Your task to perform on an android device: change notifications settings Image 0: 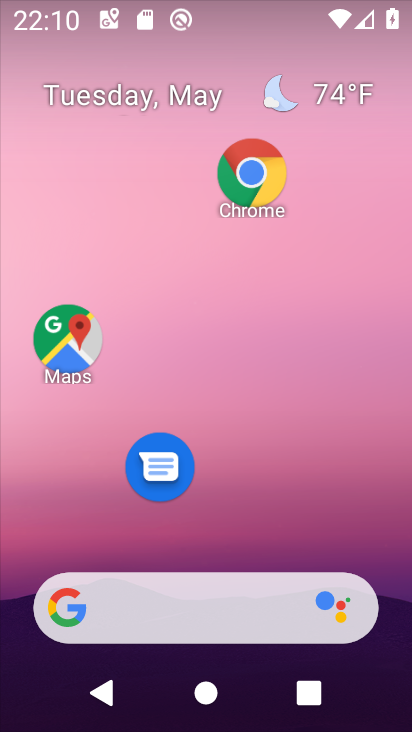
Step 0: drag from (351, 517) to (352, 171)
Your task to perform on an android device: change notifications settings Image 1: 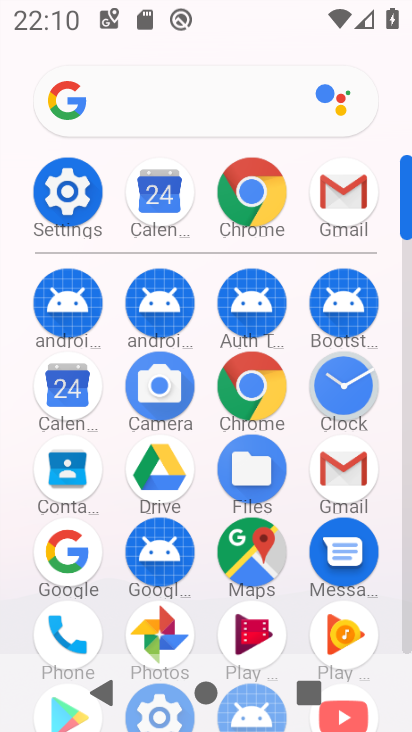
Step 1: click (80, 199)
Your task to perform on an android device: change notifications settings Image 2: 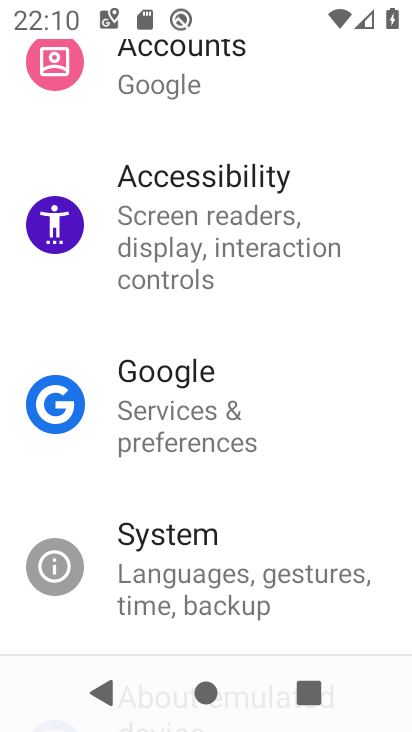
Step 2: drag from (280, 117) to (269, 558)
Your task to perform on an android device: change notifications settings Image 3: 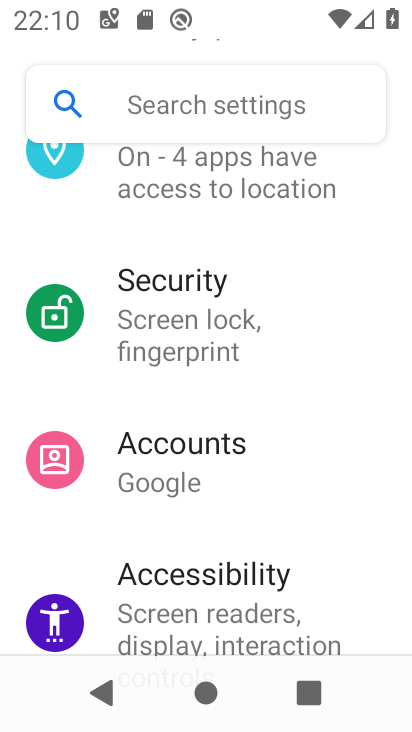
Step 3: drag from (303, 300) to (301, 489)
Your task to perform on an android device: change notifications settings Image 4: 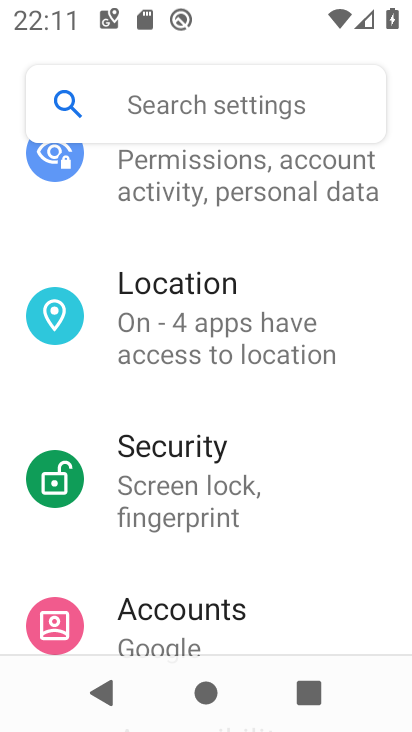
Step 4: drag from (301, 271) to (278, 551)
Your task to perform on an android device: change notifications settings Image 5: 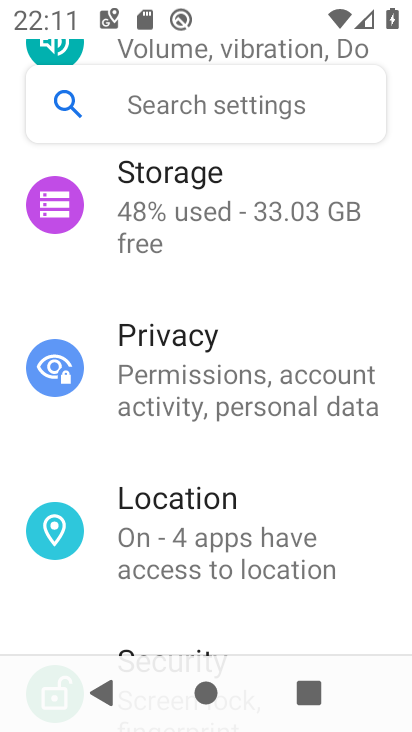
Step 5: drag from (285, 277) to (260, 603)
Your task to perform on an android device: change notifications settings Image 6: 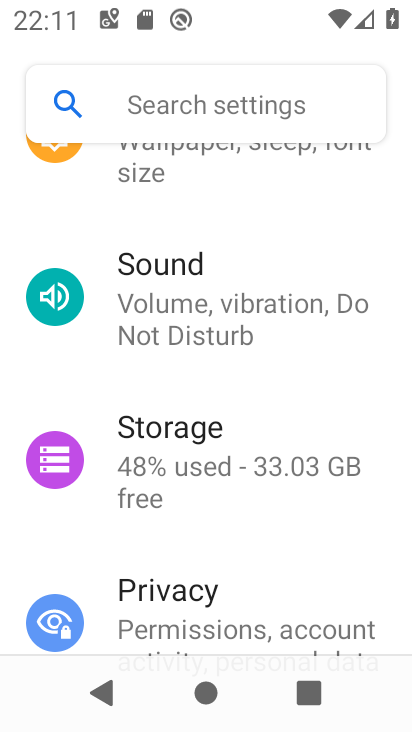
Step 6: drag from (289, 248) to (238, 646)
Your task to perform on an android device: change notifications settings Image 7: 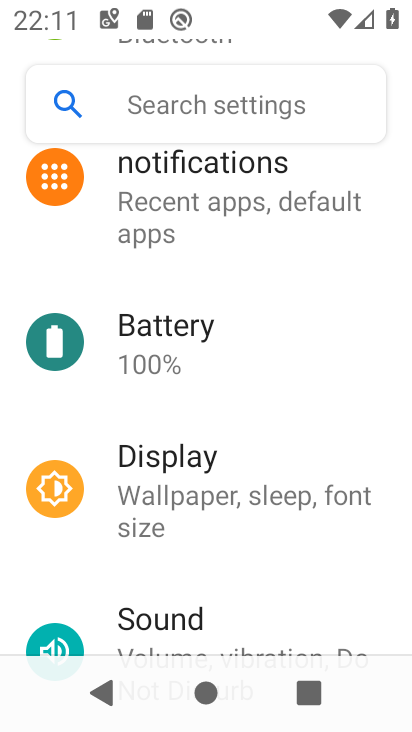
Step 7: drag from (265, 202) to (274, 535)
Your task to perform on an android device: change notifications settings Image 8: 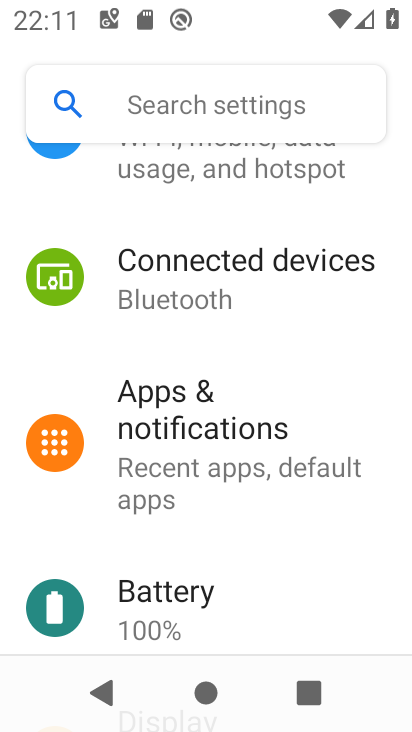
Step 8: click (266, 472)
Your task to perform on an android device: change notifications settings Image 9: 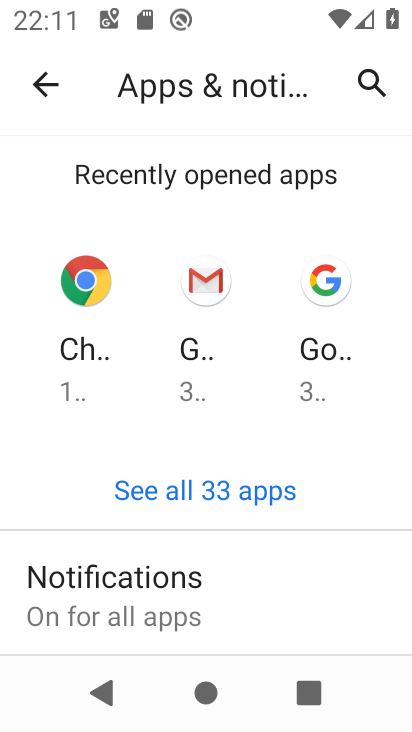
Step 9: click (182, 601)
Your task to perform on an android device: change notifications settings Image 10: 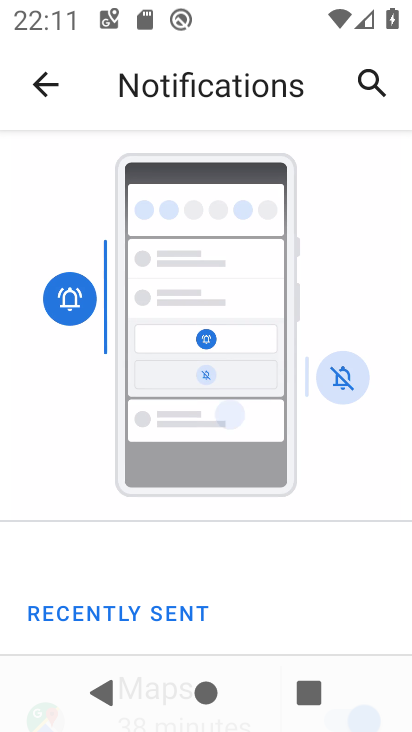
Step 10: drag from (264, 622) to (288, 276)
Your task to perform on an android device: change notifications settings Image 11: 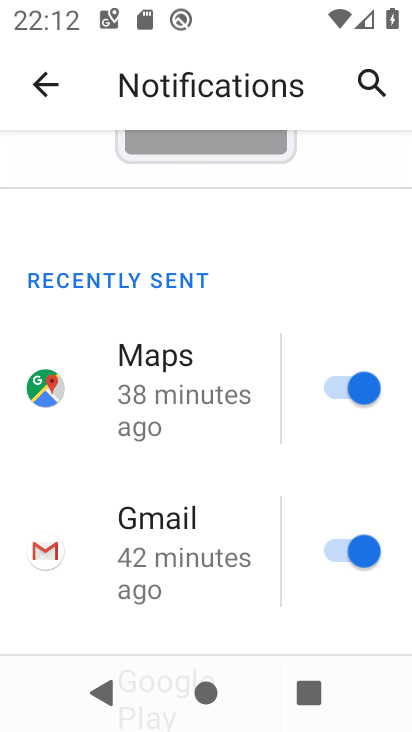
Step 11: drag from (221, 589) to (248, 277)
Your task to perform on an android device: change notifications settings Image 12: 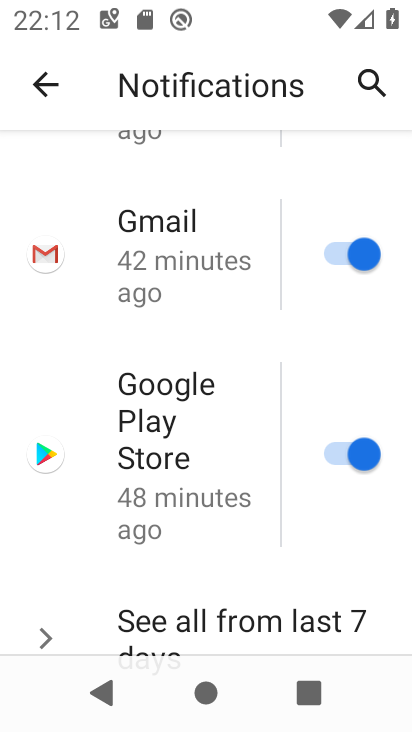
Step 12: drag from (195, 587) to (240, 297)
Your task to perform on an android device: change notifications settings Image 13: 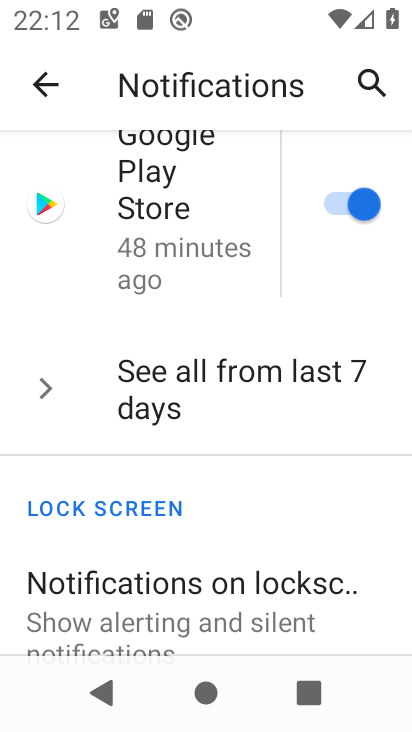
Step 13: drag from (206, 558) to (249, 259)
Your task to perform on an android device: change notifications settings Image 14: 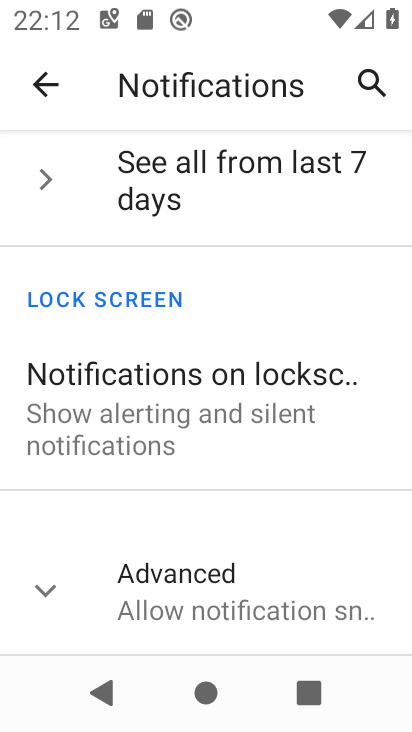
Step 14: click (224, 436)
Your task to perform on an android device: change notifications settings Image 15: 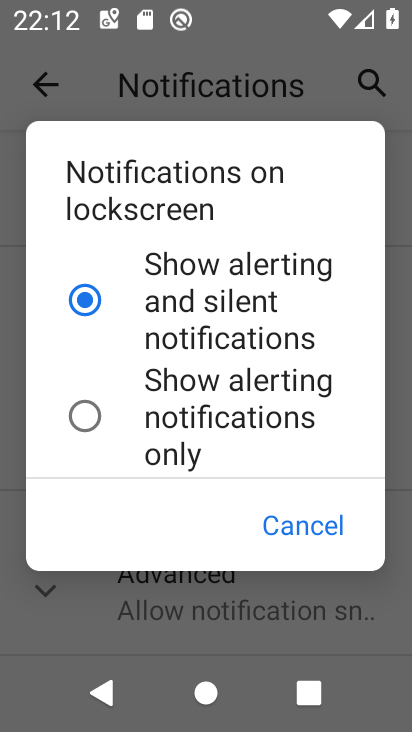
Step 15: click (96, 415)
Your task to perform on an android device: change notifications settings Image 16: 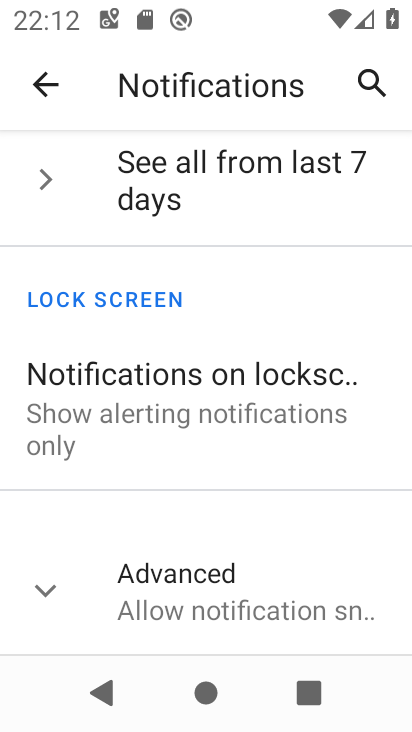
Step 16: task complete